Your task to perform on an android device: change the clock display to show seconds Image 0: 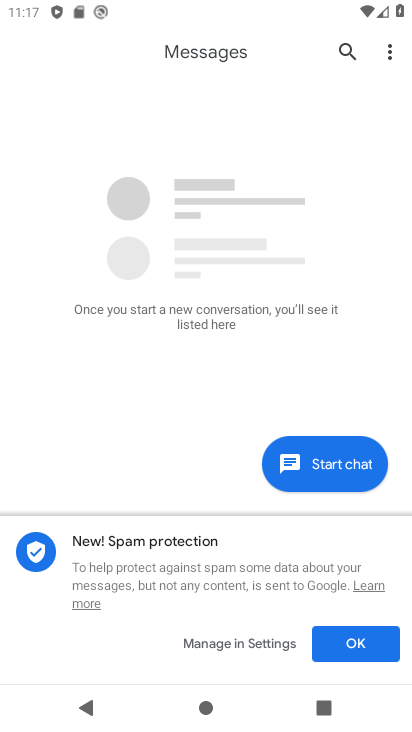
Step 0: drag from (300, 590) to (302, 434)
Your task to perform on an android device: change the clock display to show seconds Image 1: 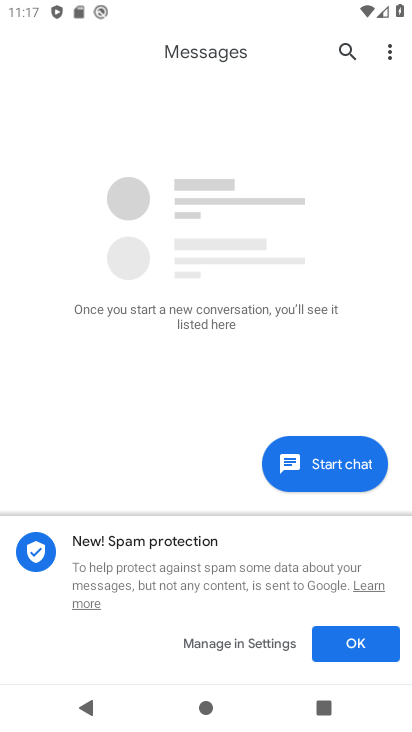
Step 1: press home button
Your task to perform on an android device: change the clock display to show seconds Image 2: 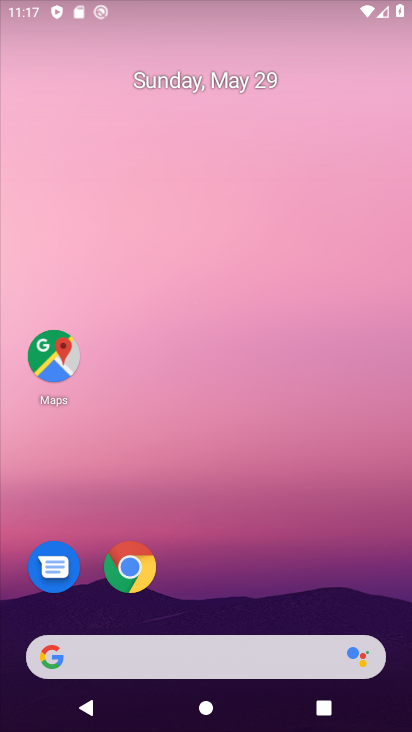
Step 2: drag from (340, 575) to (307, 198)
Your task to perform on an android device: change the clock display to show seconds Image 3: 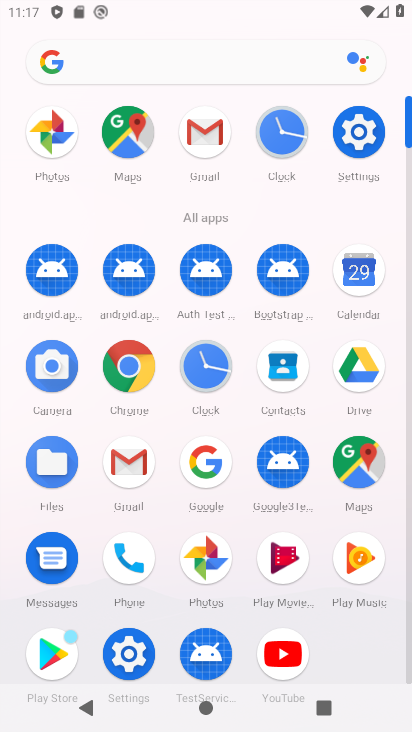
Step 3: click (197, 372)
Your task to perform on an android device: change the clock display to show seconds Image 4: 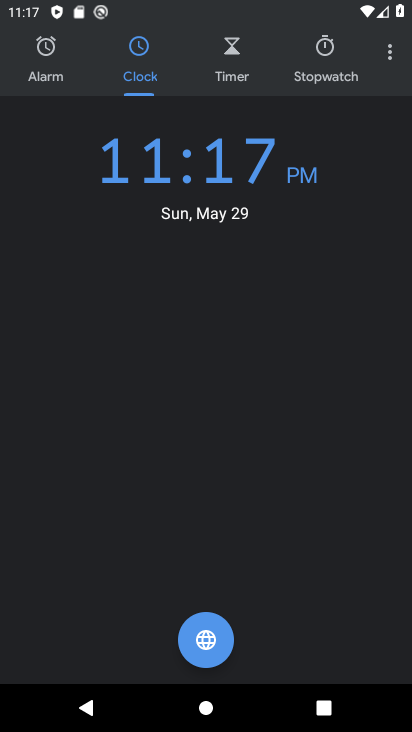
Step 4: drag from (392, 68) to (280, 106)
Your task to perform on an android device: change the clock display to show seconds Image 5: 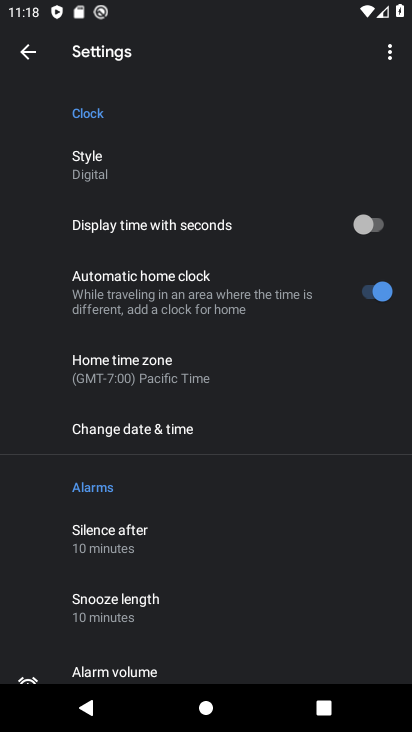
Step 5: click (386, 227)
Your task to perform on an android device: change the clock display to show seconds Image 6: 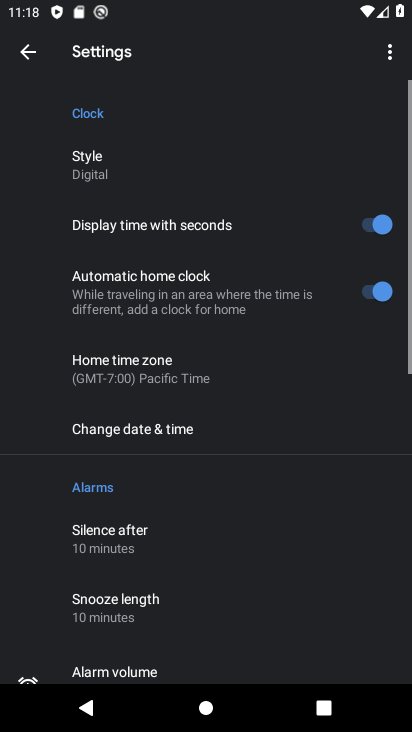
Step 6: task complete